Your task to perform on an android device: Go to Wikipedia Image 0: 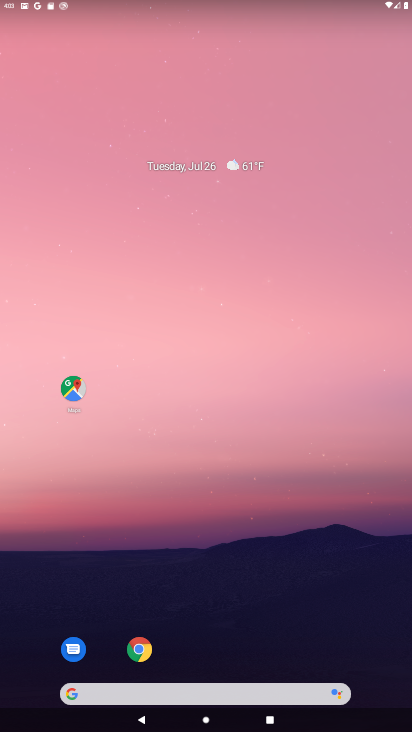
Step 0: click (124, 694)
Your task to perform on an android device: Go to Wikipedia Image 1: 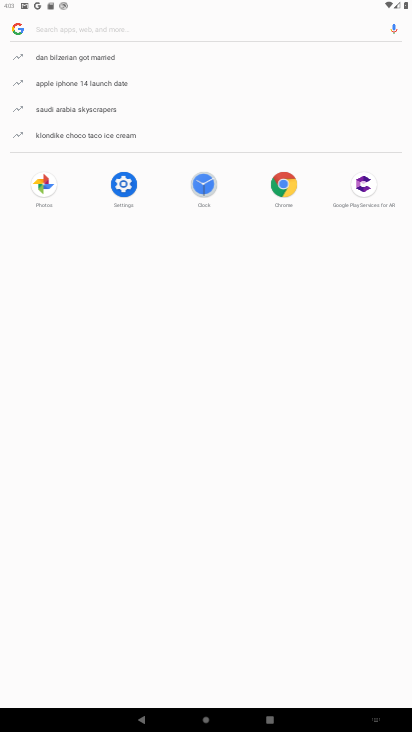
Step 1: type "Wikipedia"
Your task to perform on an android device: Go to Wikipedia Image 2: 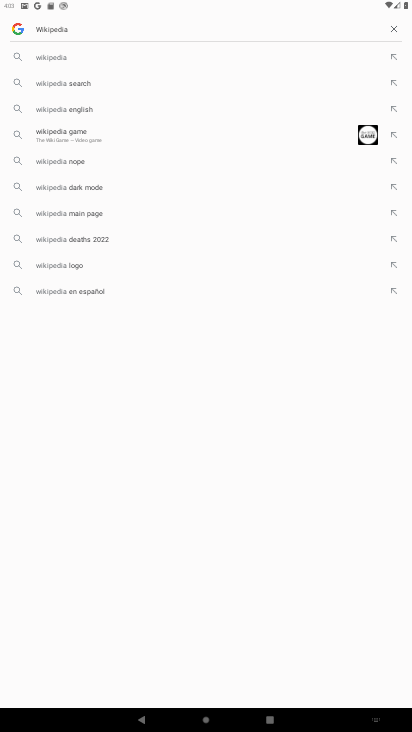
Step 2: press enter
Your task to perform on an android device: Go to Wikipedia Image 3: 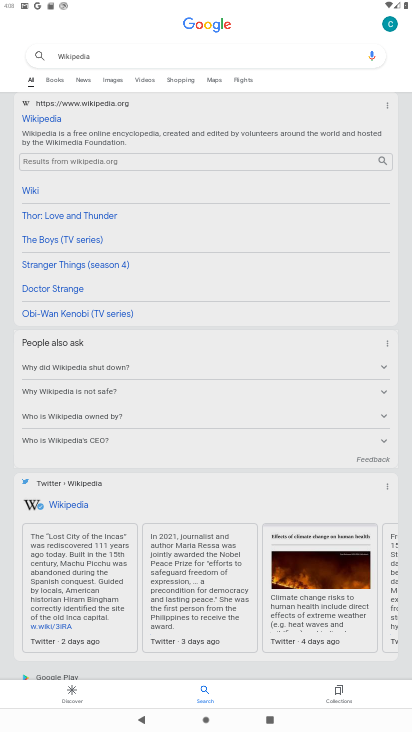
Step 3: task complete